Your task to perform on an android device: change the clock display to digital Image 0: 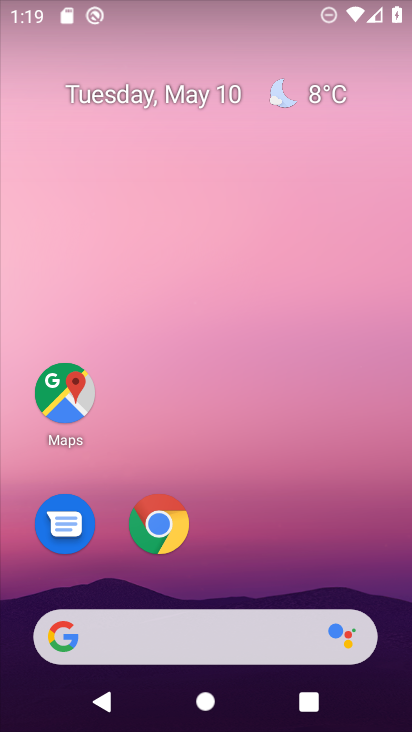
Step 0: drag from (279, 535) to (248, 61)
Your task to perform on an android device: change the clock display to digital Image 1: 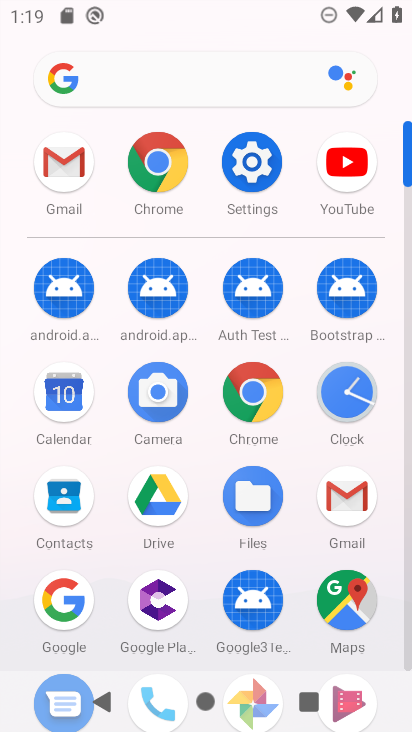
Step 1: click (349, 391)
Your task to perform on an android device: change the clock display to digital Image 2: 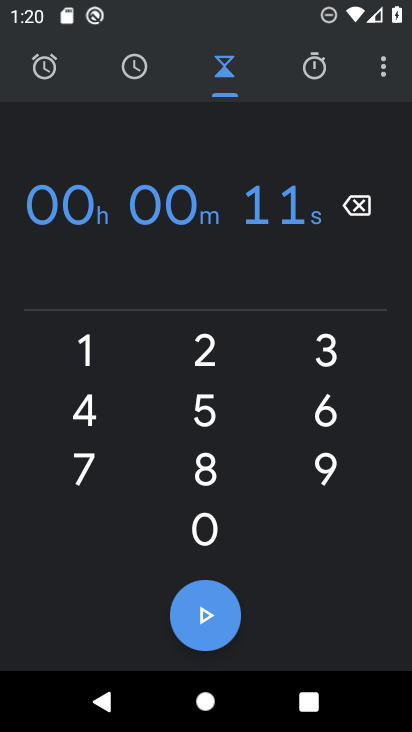
Step 2: click (128, 75)
Your task to perform on an android device: change the clock display to digital Image 3: 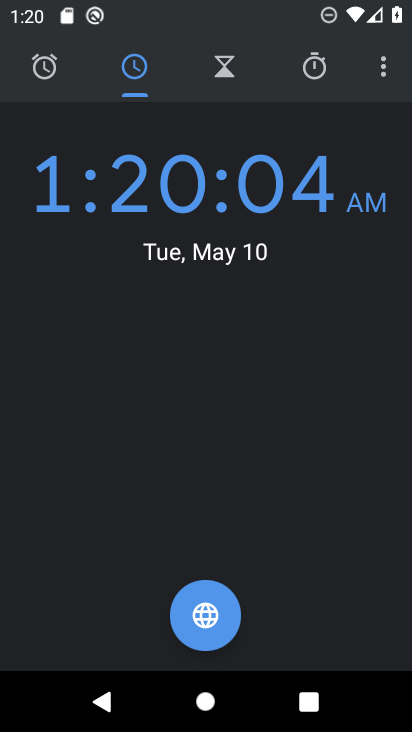
Step 3: task complete